Your task to perform on an android device: change the clock display to digital Image 0: 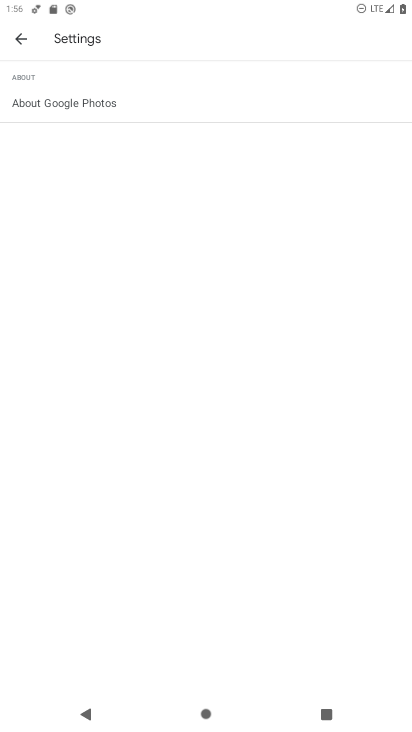
Step 0: press home button
Your task to perform on an android device: change the clock display to digital Image 1: 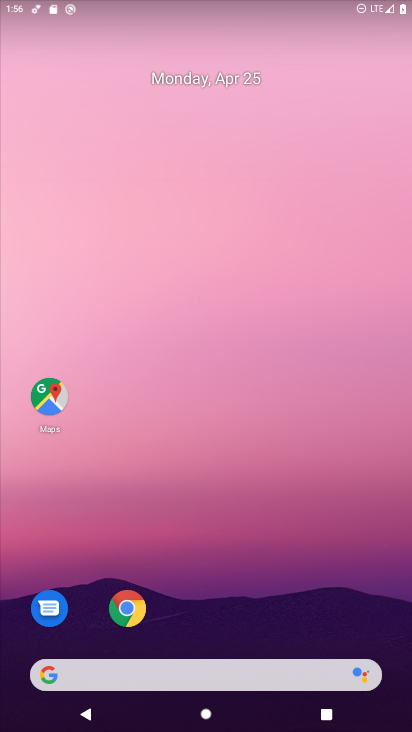
Step 1: drag from (361, 602) to (235, 147)
Your task to perform on an android device: change the clock display to digital Image 2: 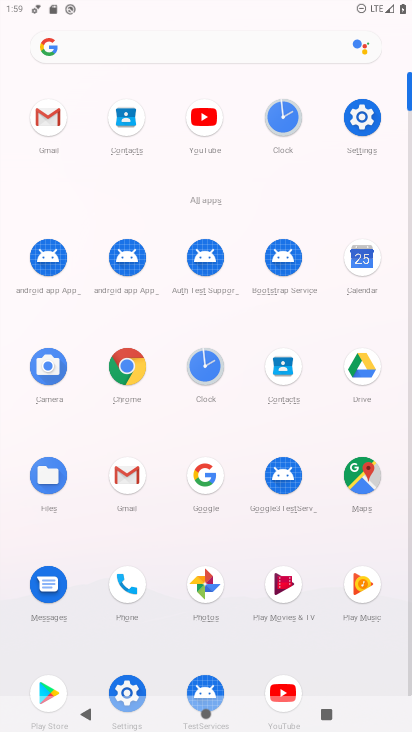
Step 2: click (292, 109)
Your task to perform on an android device: change the clock display to digital Image 3: 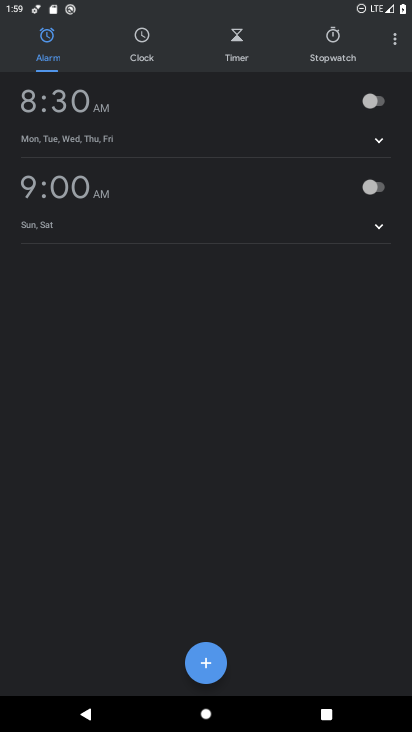
Step 3: click (391, 38)
Your task to perform on an android device: change the clock display to digital Image 4: 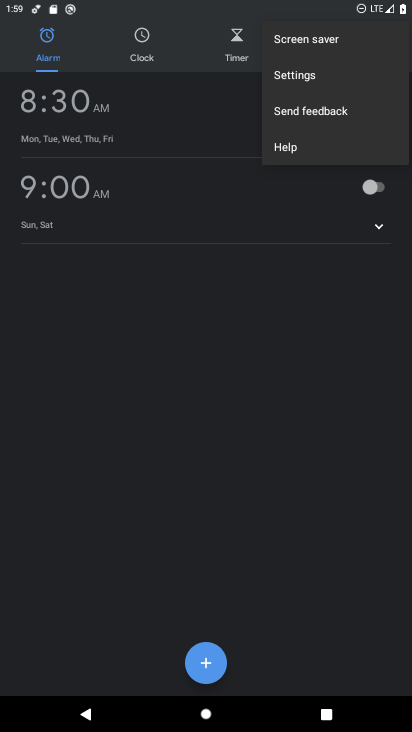
Step 4: click (314, 71)
Your task to perform on an android device: change the clock display to digital Image 5: 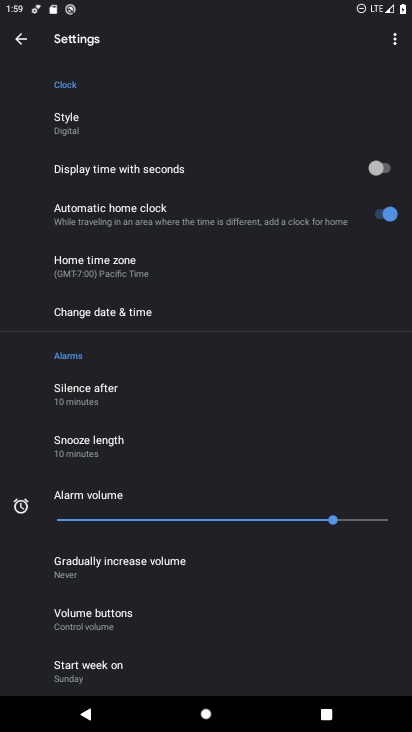
Step 5: click (106, 124)
Your task to perform on an android device: change the clock display to digital Image 6: 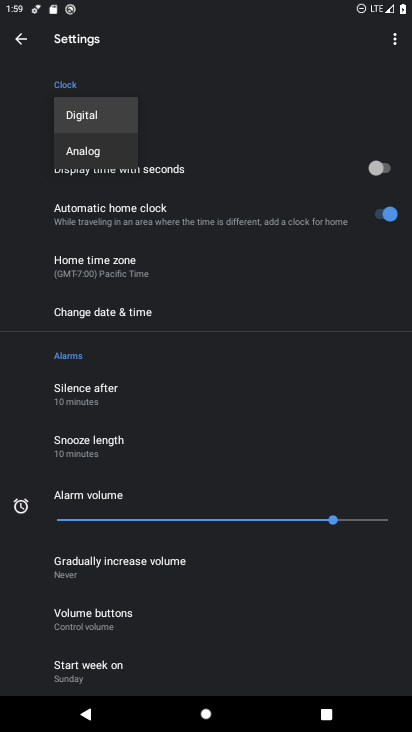
Step 6: click (106, 124)
Your task to perform on an android device: change the clock display to digital Image 7: 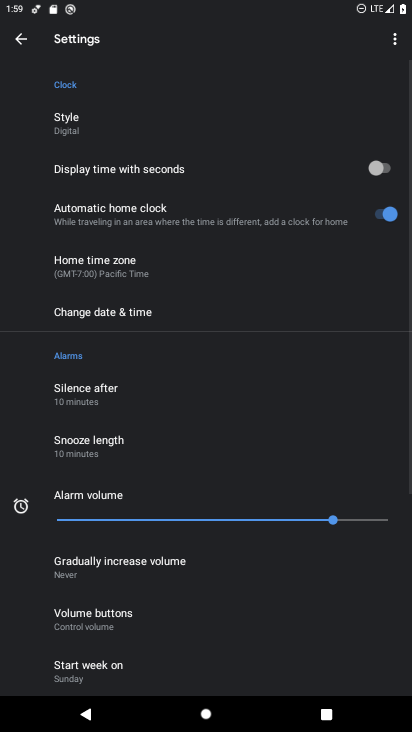
Step 7: task complete